Your task to perform on an android device: What's the weather going to be tomorrow? Image 0: 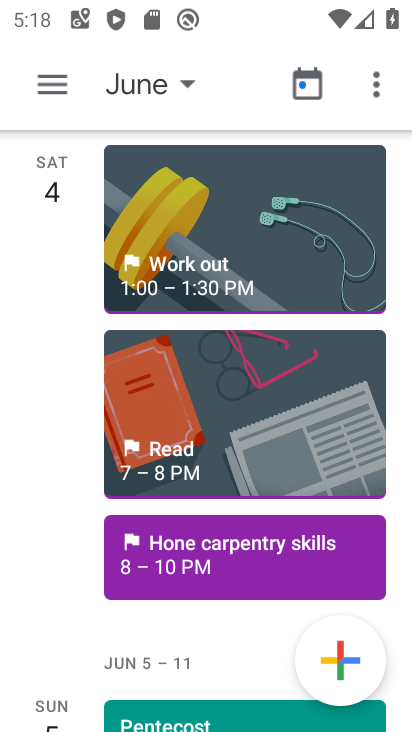
Step 0: press home button
Your task to perform on an android device: What's the weather going to be tomorrow? Image 1: 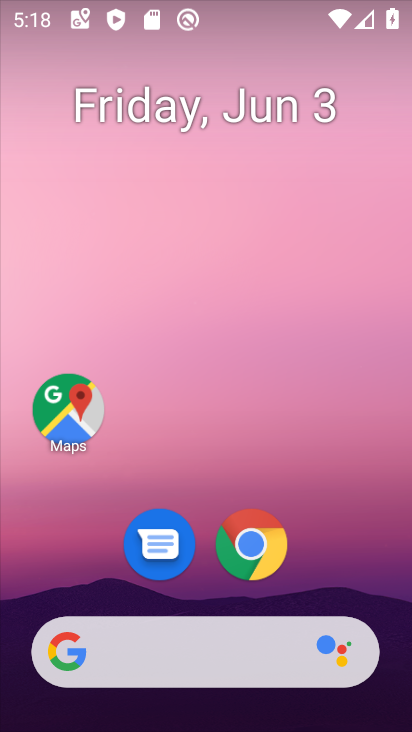
Step 1: click (248, 553)
Your task to perform on an android device: What's the weather going to be tomorrow? Image 2: 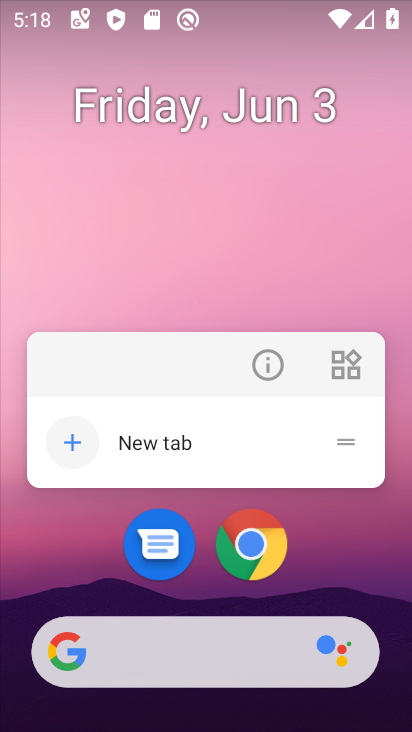
Step 2: click (380, 557)
Your task to perform on an android device: What's the weather going to be tomorrow? Image 3: 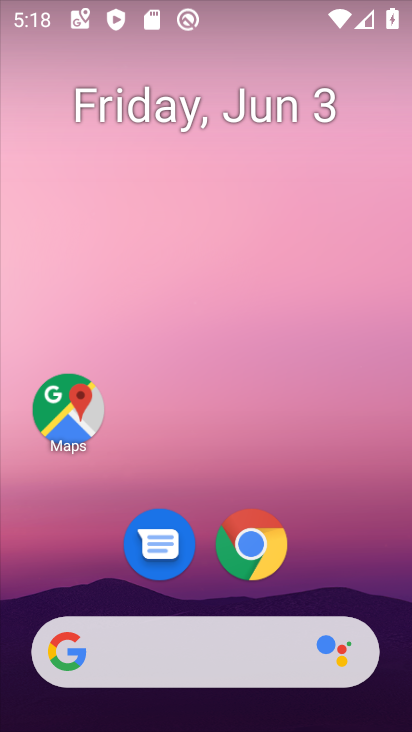
Step 3: drag from (360, 564) to (373, 97)
Your task to perform on an android device: What's the weather going to be tomorrow? Image 4: 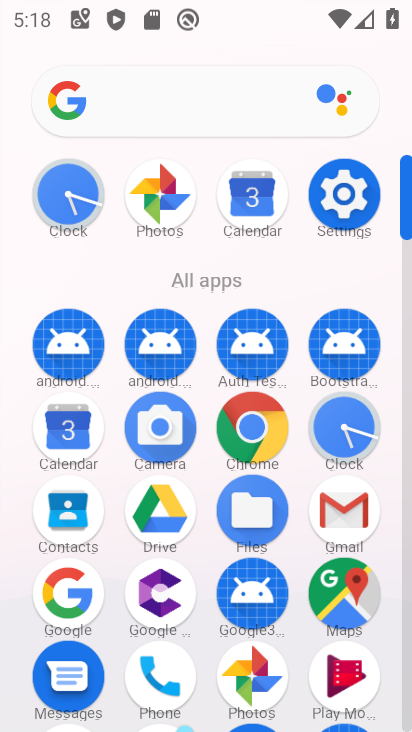
Step 4: click (254, 420)
Your task to perform on an android device: What's the weather going to be tomorrow? Image 5: 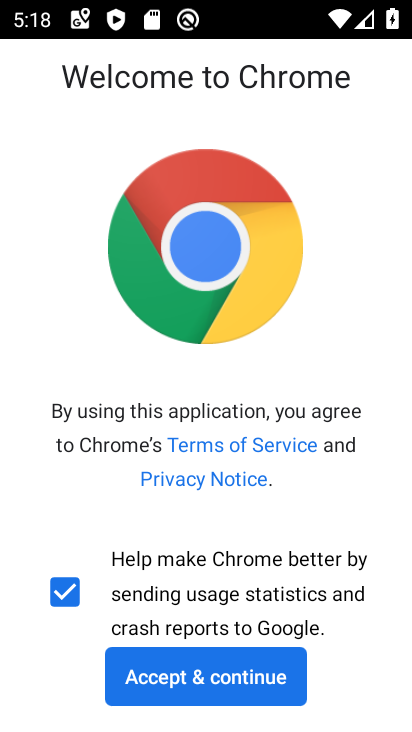
Step 5: click (216, 681)
Your task to perform on an android device: What's the weather going to be tomorrow? Image 6: 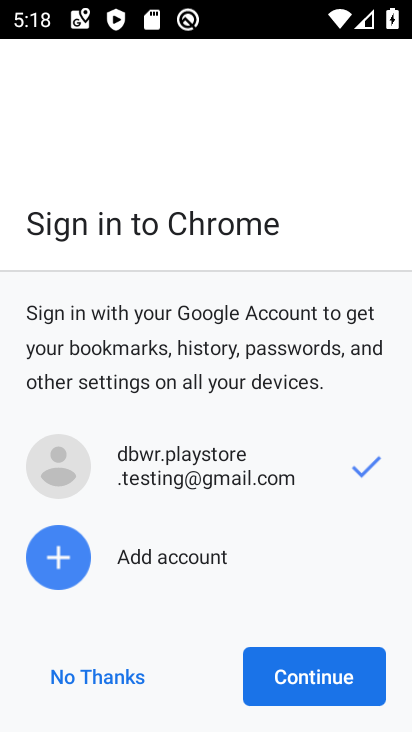
Step 6: click (305, 668)
Your task to perform on an android device: What's the weather going to be tomorrow? Image 7: 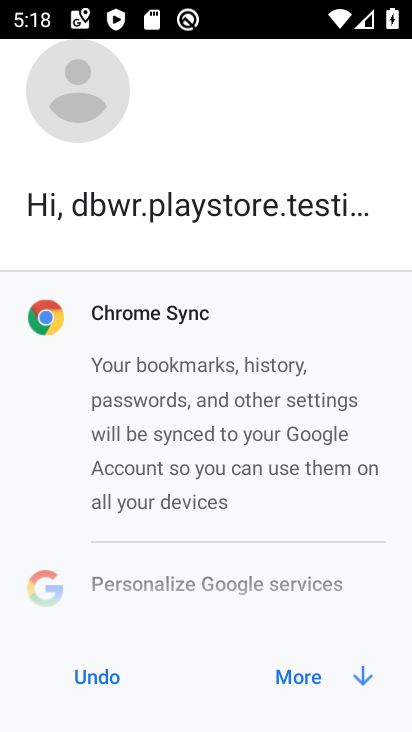
Step 7: click (320, 672)
Your task to perform on an android device: What's the weather going to be tomorrow? Image 8: 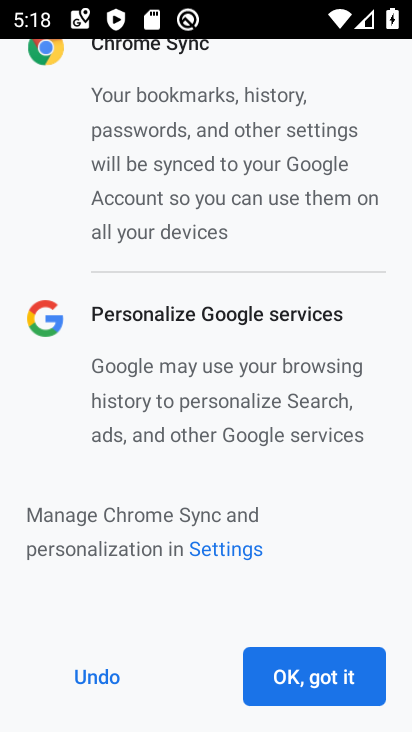
Step 8: click (320, 672)
Your task to perform on an android device: What's the weather going to be tomorrow? Image 9: 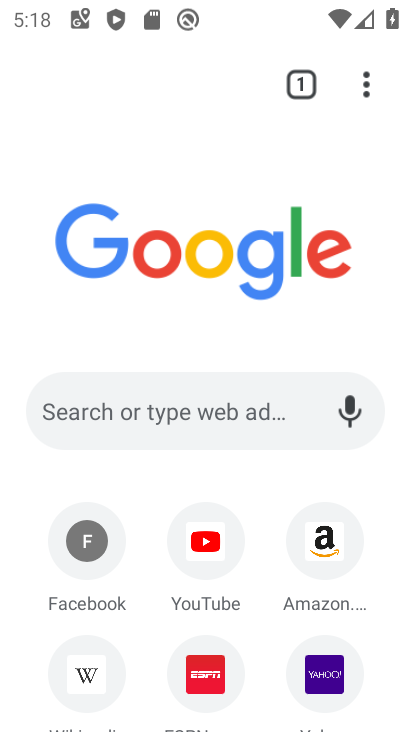
Step 9: click (152, 396)
Your task to perform on an android device: What's the weather going to be tomorrow? Image 10: 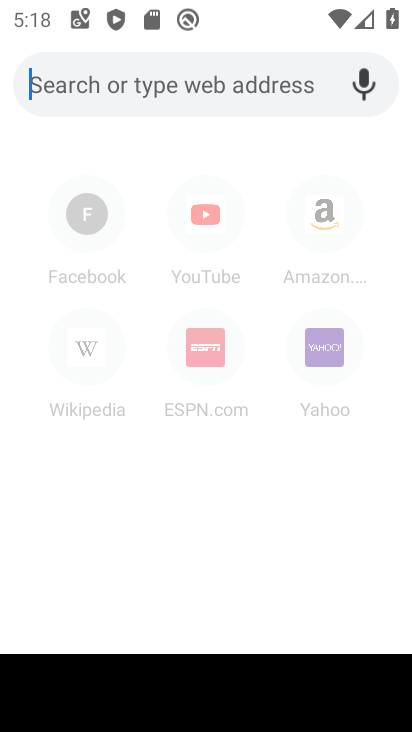
Step 10: type "What's the weather going to be tomorrow?"
Your task to perform on an android device: What's the weather going to be tomorrow? Image 11: 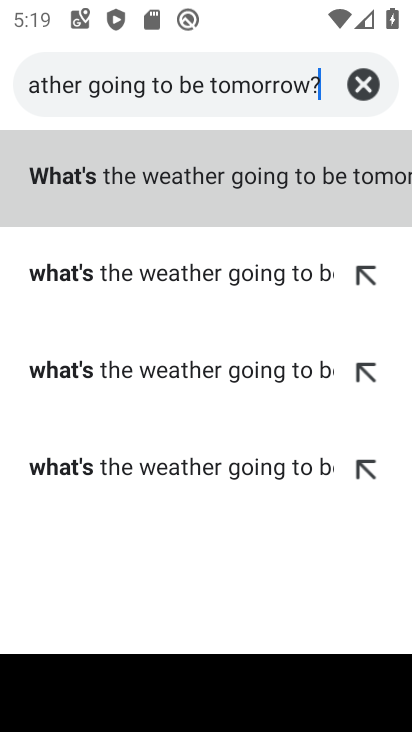
Step 11: click (146, 181)
Your task to perform on an android device: What's the weather going to be tomorrow? Image 12: 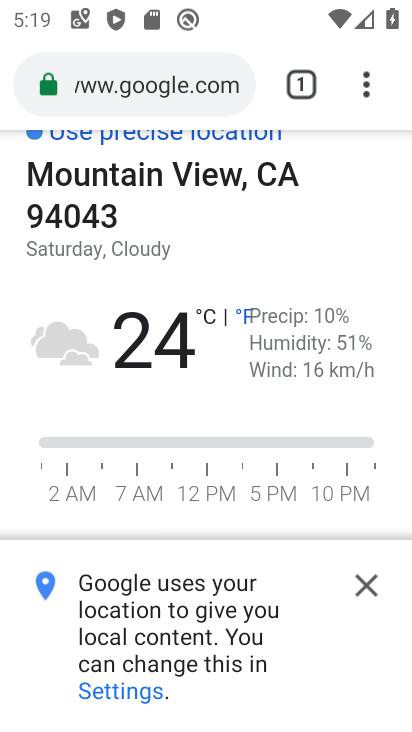
Step 12: task complete